Your task to perform on an android device: Open settings on Google Maps Image 0: 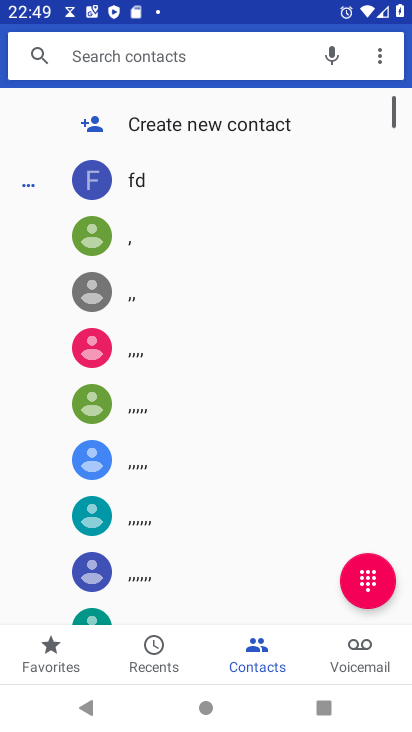
Step 0: press home button
Your task to perform on an android device: Open settings on Google Maps Image 1: 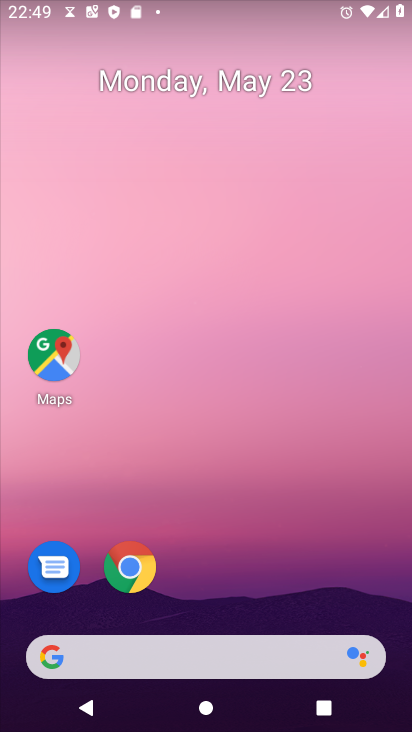
Step 1: drag from (204, 643) to (238, 199)
Your task to perform on an android device: Open settings on Google Maps Image 2: 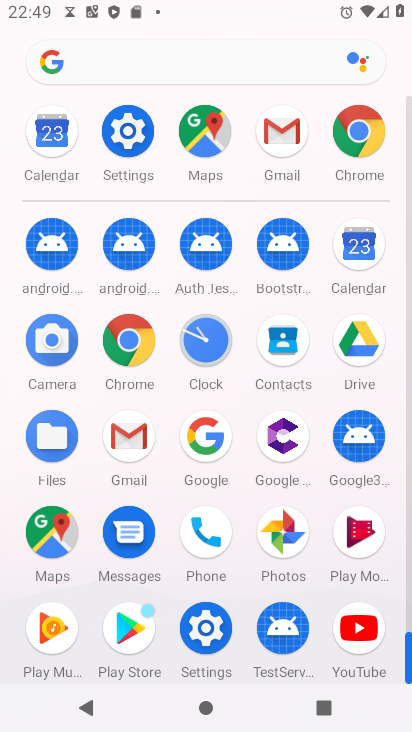
Step 2: click (198, 138)
Your task to perform on an android device: Open settings on Google Maps Image 3: 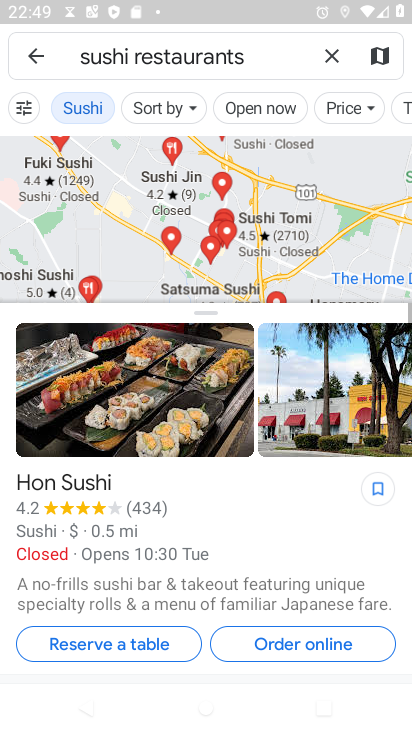
Step 3: click (324, 50)
Your task to perform on an android device: Open settings on Google Maps Image 4: 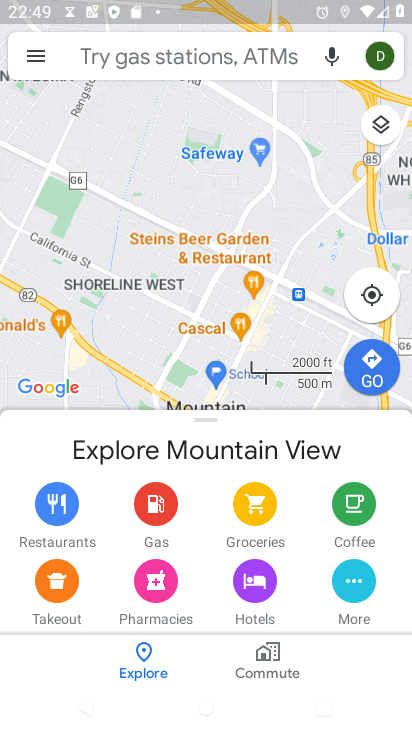
Step 4: click (26, 54)
Your task to perform on an android device: Open settings on Google Maps Image 5: 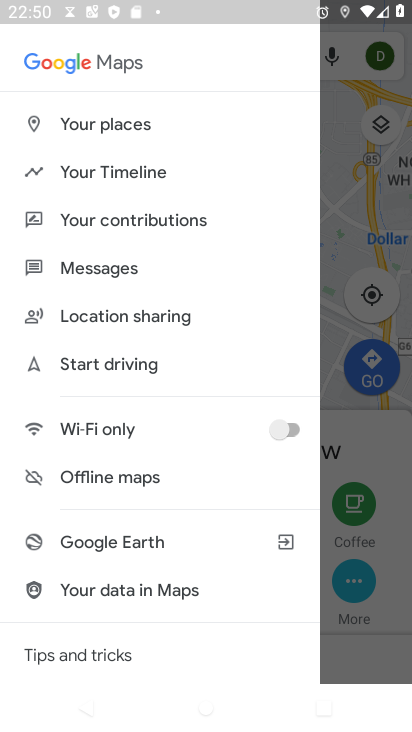
Step 5: drag from (140, 522) to (182, 258)
Your task to perform on an android device: Open settings on Google Maps Image 6: 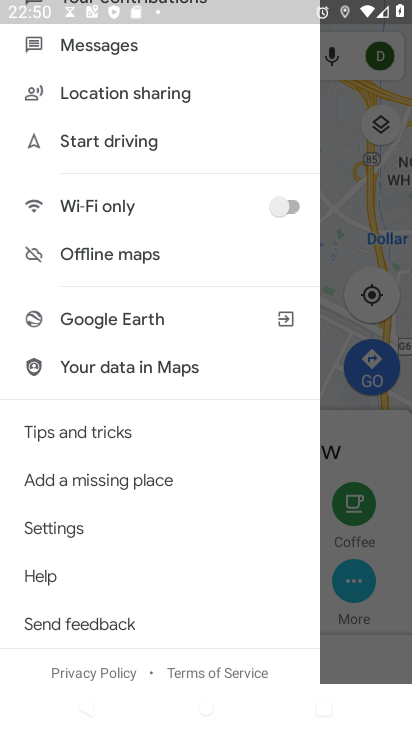
Step 6: click (49, 545)
Your task to perform on an android device: Open settings on Google Maps Image 7: 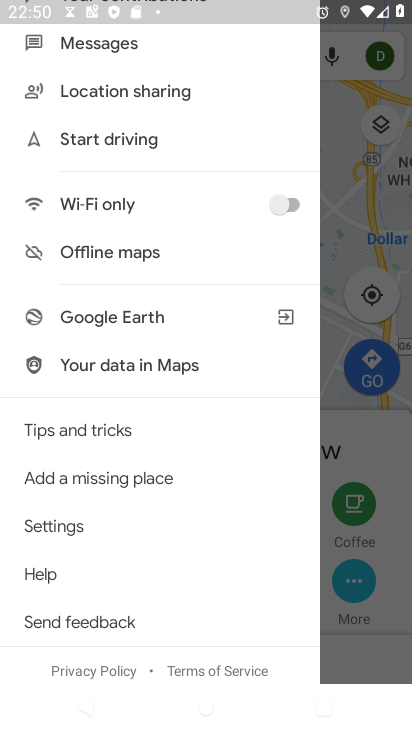
Step 7: task complete